Your task to perform on an android device: Open Google Maps Image 0: 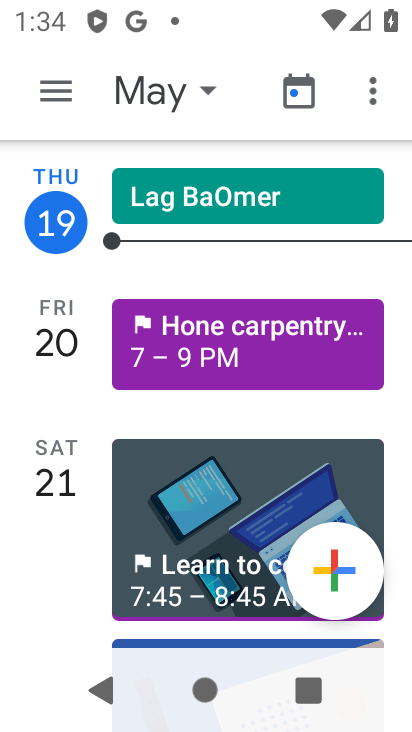
Step 0: press home button
Your task to perform on an android device: Open Google Maps Image 1: 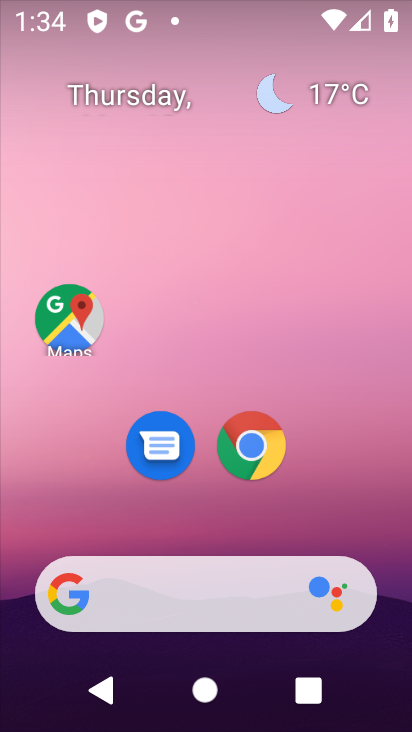
Step 1: click (68, 327)
Your task to perform on an android device: Open Google Maps Image 2: 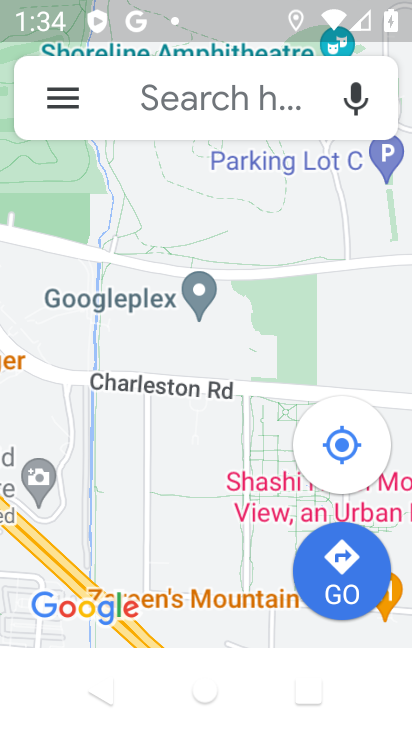
Step 2: task complete